Your task to perform on an android device: star an email in the gmail app Image 0: 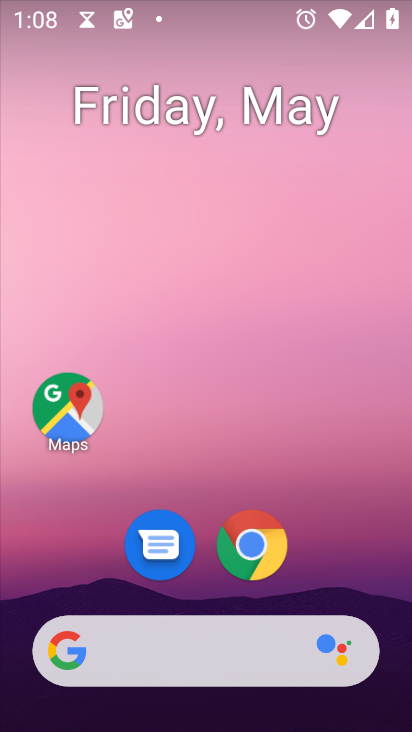
Step 0: drag from (329, 552) to (271, 27)
Your task to perform on an android device: star an email in the gmail app Image 1: 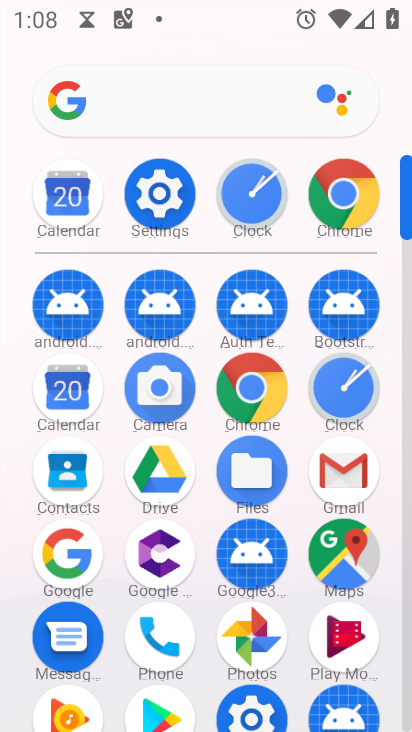
Step 1: click (341, 479)
Your task to perform on an android device: star an email in the gmail app Image 2: 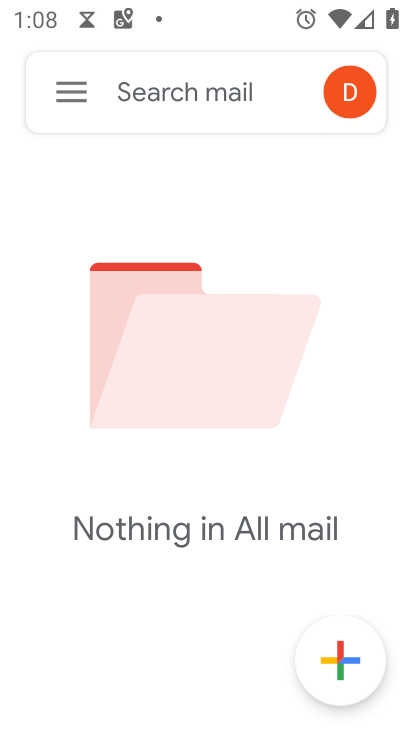
Step 2: click (78, 87)
Your task to perform on an android device: star an email in the gmail app Image 3: 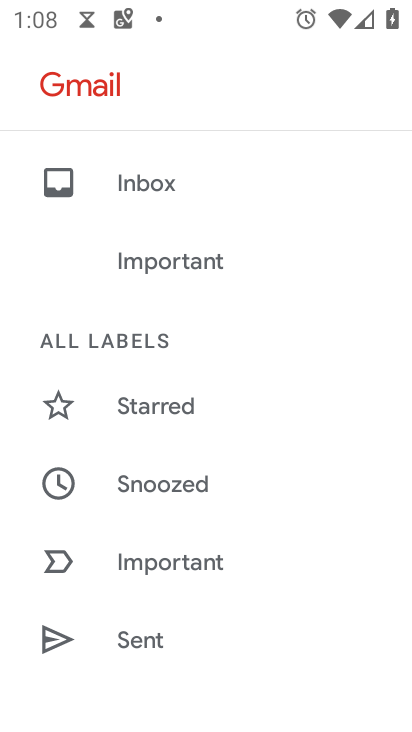
Step 3: click (167, 180)
Your task to perform on an android device: star an email in the gmail app Image 4: 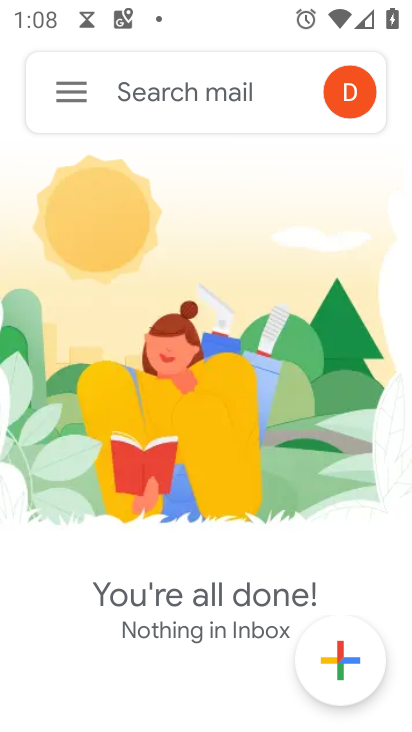
Step 4: task complete